Your task to perform on an android device: Open the calendar app, open the side menu, and click the "Day" option Image 0: 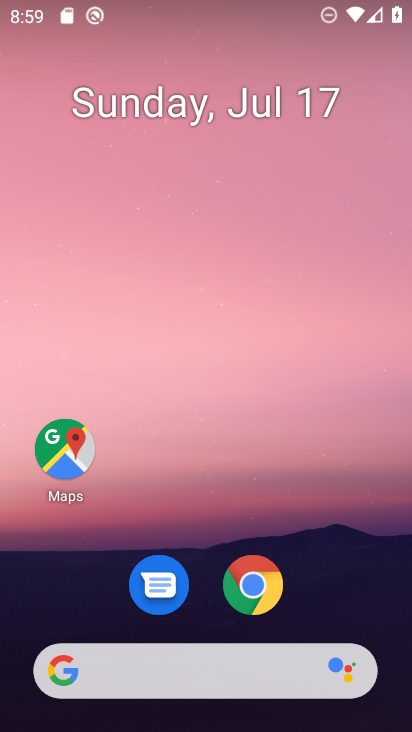
Step 0: drag from (155, 675) to (285, 136)
Your task to perform on an android device: Open the calendar app, open the side menu, and click the "Day" option Image 1: 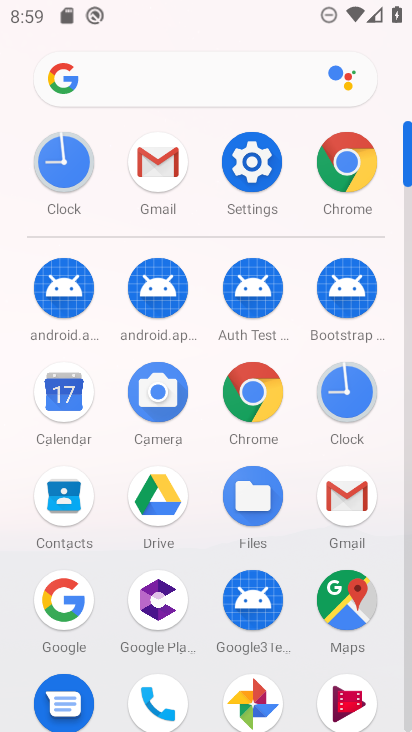
Step 1: click (63, 398)
Your task to perform on an android device: Open the calendar app, open the side menu, and click the "Day" option Image 2: 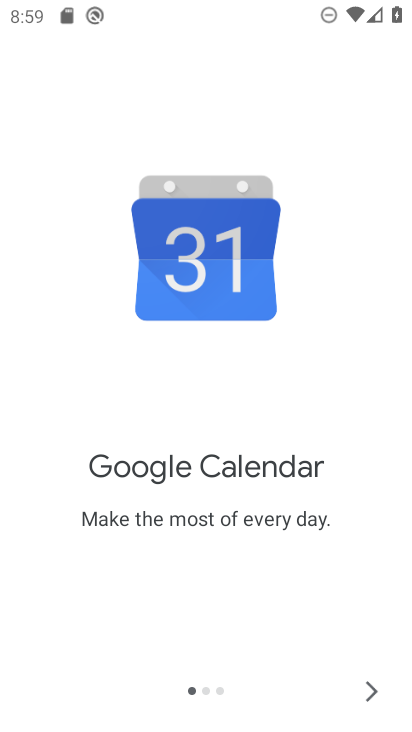
Step 2: click (372, 687)
Your task to perform on an android device: Open the calendar app, open the side menu, and click the "Day" option Image 3: 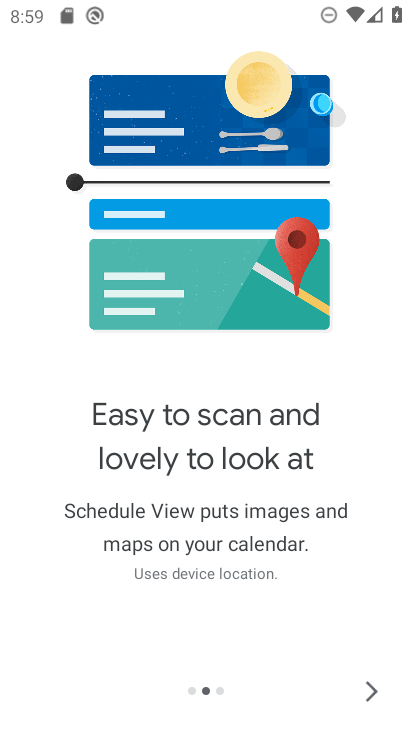
Step 3: click (372, 688)
Your task to perform on an android device: Open the calendar app, open the side menu, and click the "Day" option Image 4: 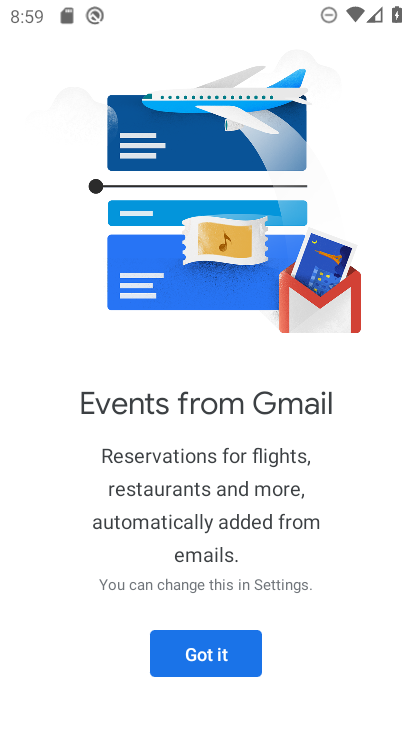
Step 4: click (216, 660)
Your task to perform on an android device: Open the calendar app, open the side menu, and click the "Day" option Image 5: 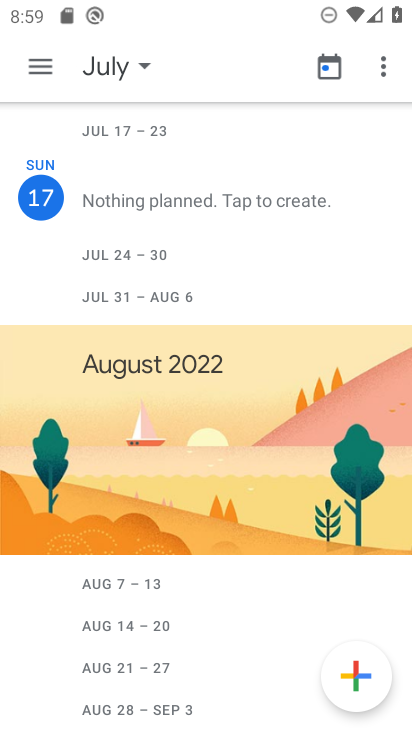
Step 5: click (36, 65)
Your task to perform on an android device: Open the calendar app, open the side menu, and click the "Day" option Image 6: 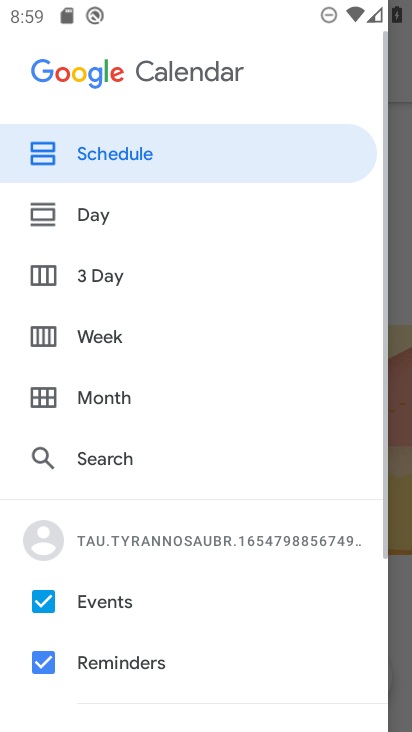
Step 6: click (95, 221)
Your task to perform on an android device: Open the calendar app, open the side menu, and click the "Day" option Image 7: 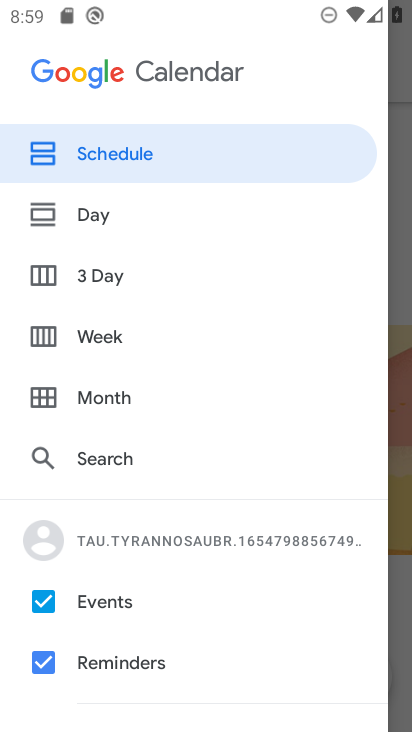
Step 7: click (87, 224)
Your task to perform on an android device: Open the calendar app, open the side menu, and click the "Day" option Image 8: 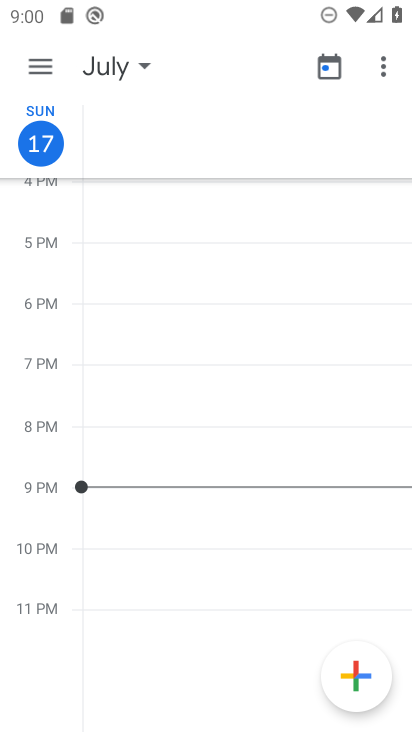
Step 8: task complete